Your task to perform on an android device: turn on the 12-hour format for clock Image 0: 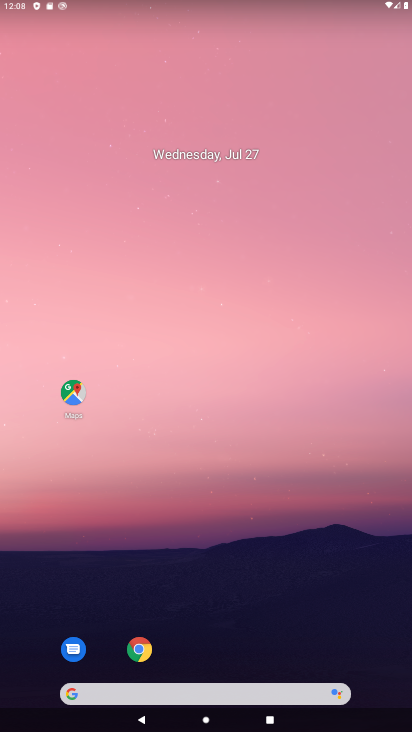
Step 0: drag from (193, 611) to (93, 82)
Your task to perform on an android device: turn on the 12-hour format for clock Image 1: 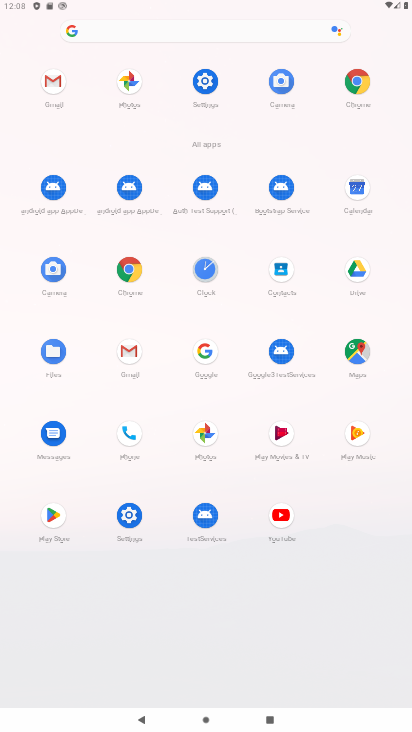
Step 1: click (206, 271)
Your task to perform on an android device: turn on the 12-hour format for clock Image 2: 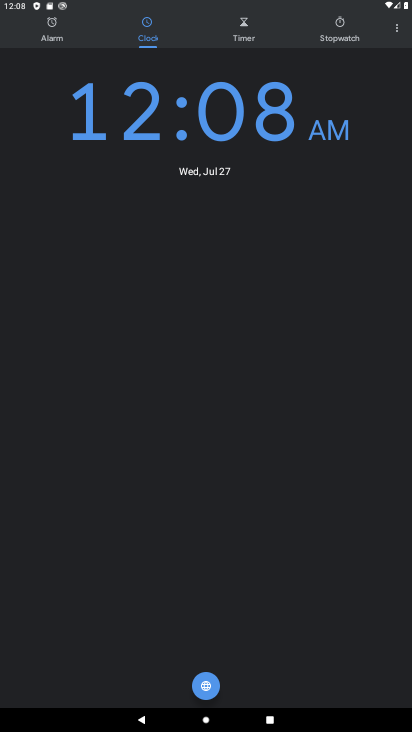
Step 2: click (403, 26)
Your task to perform on an android device: turn on the 12-hour format for clock Image 3: 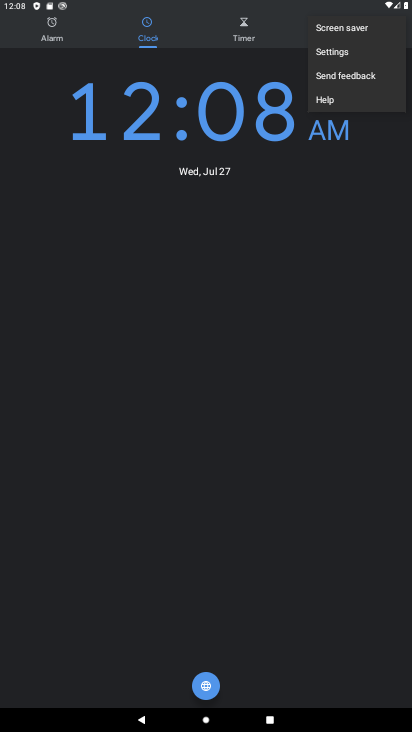
Step 3: click (348, 53)
Your task to perform on an android device: turn on the 12-hour format for clock Image 4: 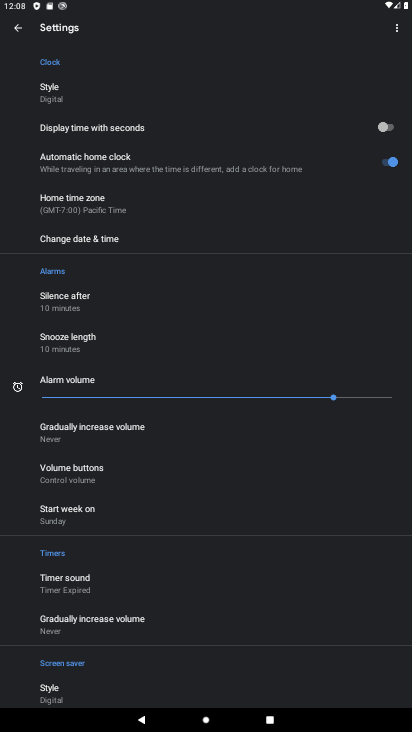
Step 4: click (93, 234)
Your task to perform on an android device: turn on the 12-hour format for clock Image 5: 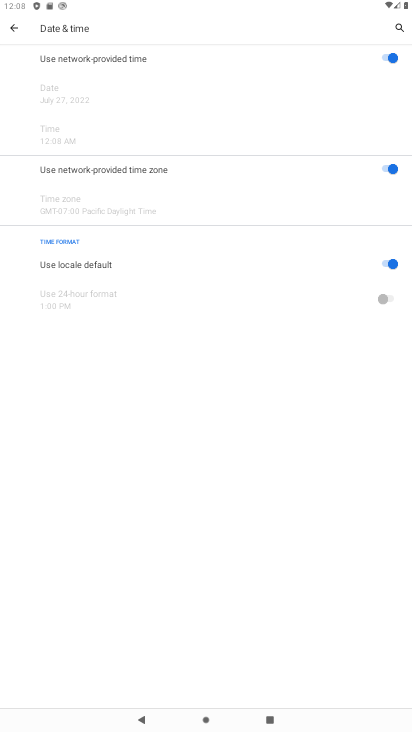
Step 5: task complete